Your task to perform on an android device: Is it going to rain this weekend? Image 0: 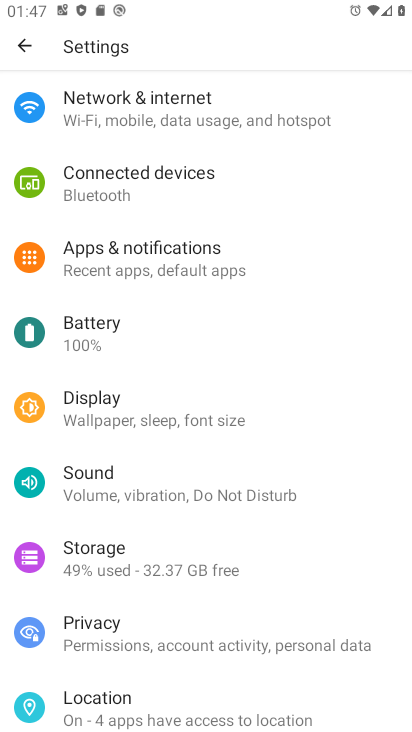
Step 0: press home button
Your task to perform on an android device: Is it going to rain this weekend? Image 1: 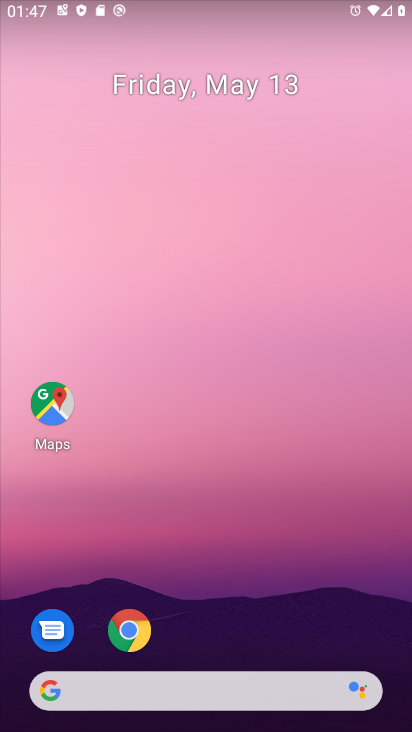
Step 1: drag from (192, 697) to (307, 114)
Your task to perform on an android device: Is it going to rain this weekend? Image 2: 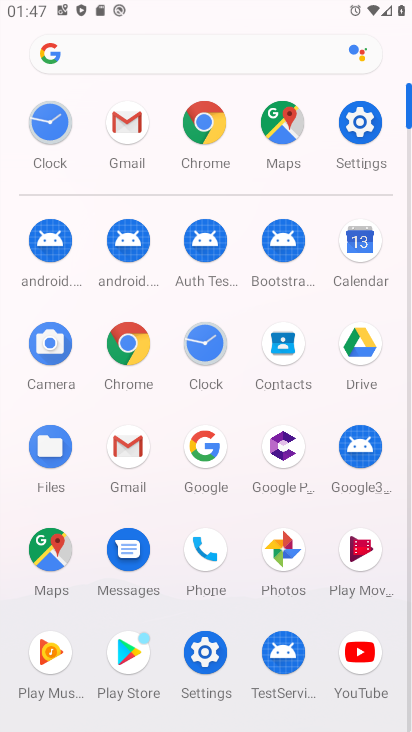
Step 2: click (147, 51)
Your task to perform on an android device: Is it going to rain this weekend? Image 3: 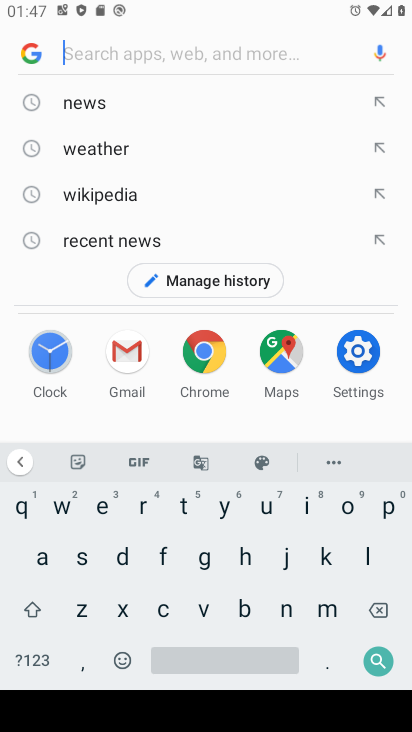
Step 3: click (93, 156)
Your task to perform on an android device: Is it going to rain this weekend? Image 4: 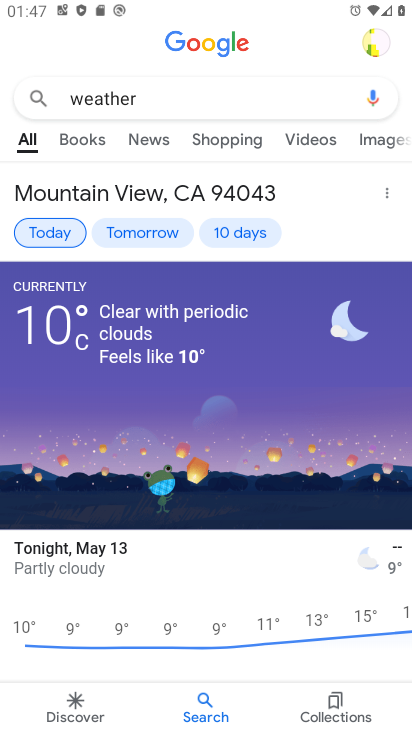
Step 4: click (216, 235)
Your task to perform on an android device: Is it going to rain this weekend? Image 5: 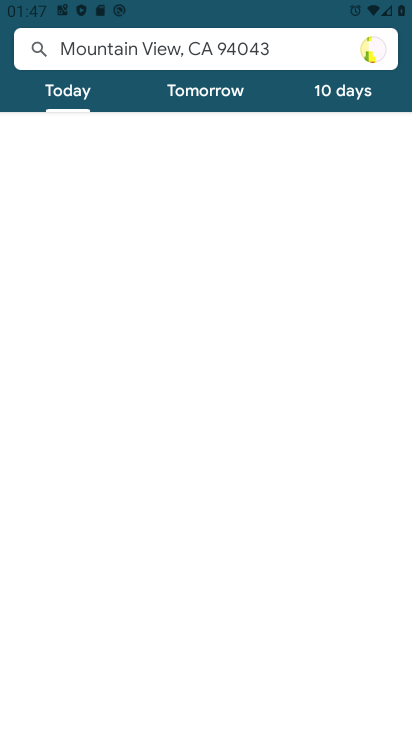
Step 5: task complete